Your task to perform on an android device: manage bookmarks in the chrome app Image 0: 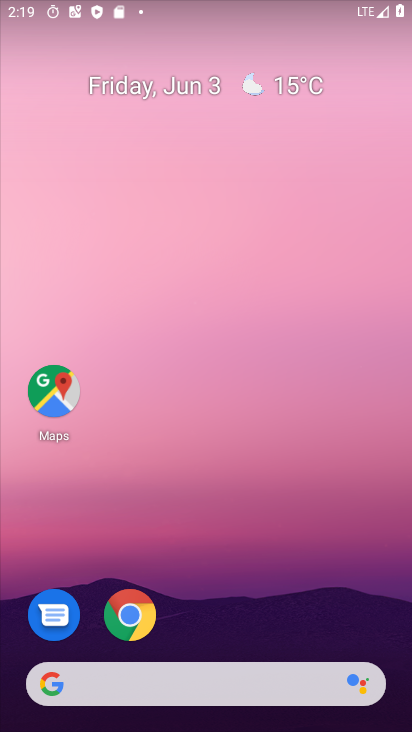
Step 0: click (227, 14)
Your task to perform on an android device: manage bookmarks in the chrome app Image 1: 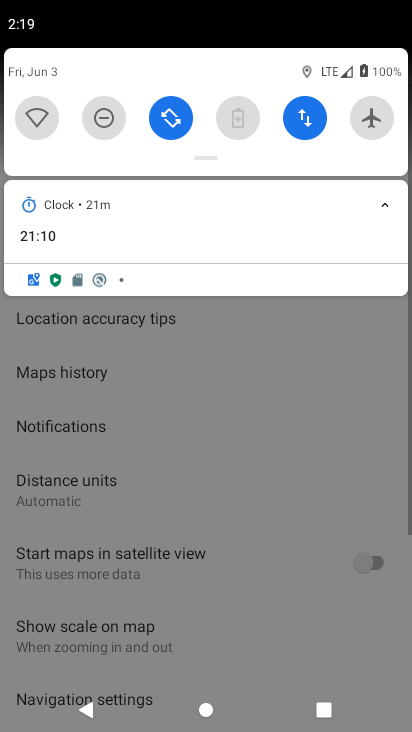
Step 1: drag from (222, 613) to (285, 79)
Your task to perform on an android device: manage bookmarks in the chrome app Image 2: 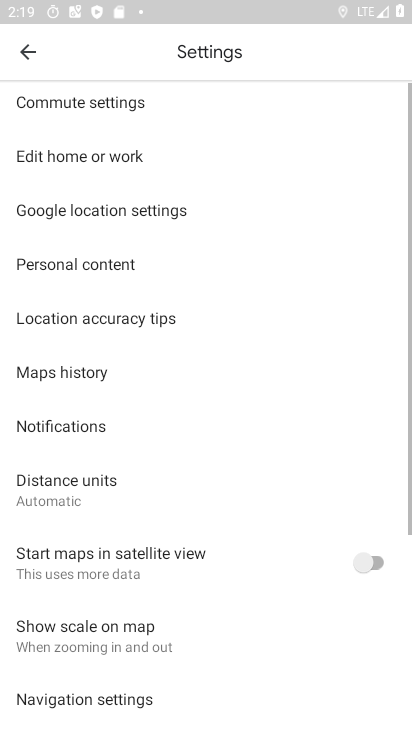
Step 2: press home button
Your task to perform on an android device: manage bookmarks in the chrome app Image 3: 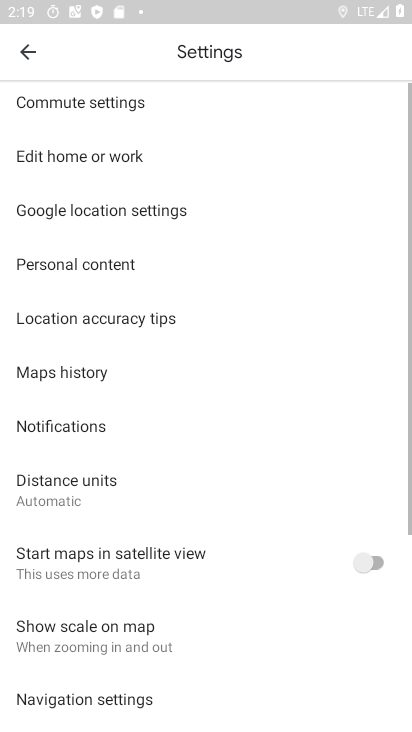
Step 3: drag from (136, 671) to (232, 32)
Your task to perform on an android device: manage bookmarks in the chrome app Image 4: 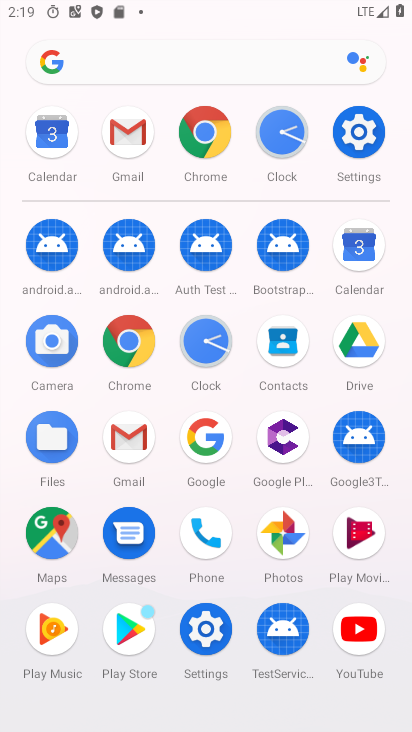
Step 4: click (132, 342)
Your task to perform on an android device: manage bookmarks in the chrome app Image 5: 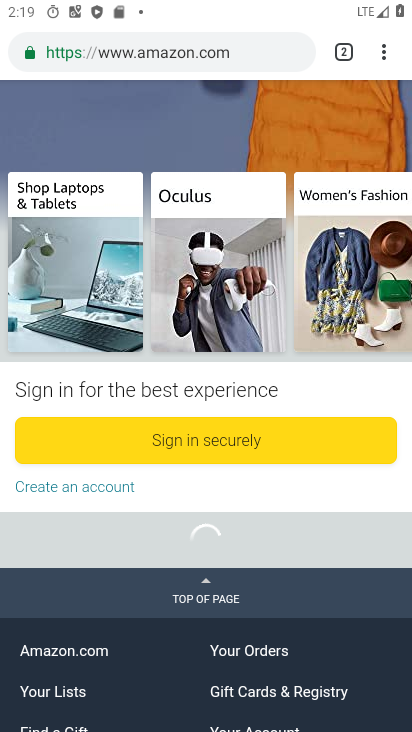
Step 5: drag from (236, 185) to (373, 722)
Your task to perform on an android device: manage bookmarks in the chrome app Image 6: 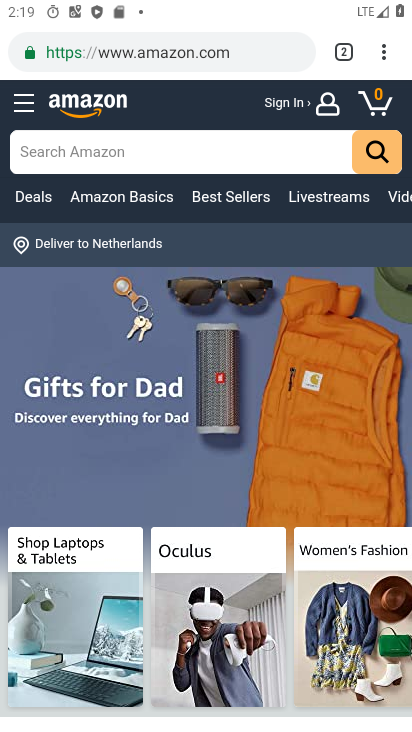
Step 6: click (390, 51)
Your task to perform on an android device: manage bookmarks in the chrome app Image 7: 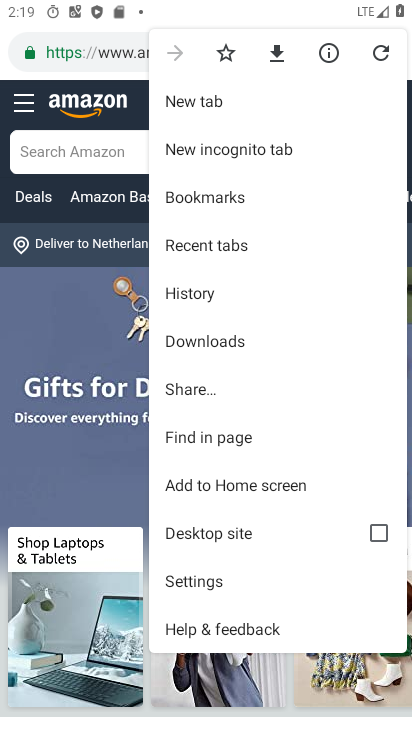
Step 7: drag from (247, 555) to (254, 295)
Your task to perform on an android device: manage bookmarks in the chrome app Image 8: 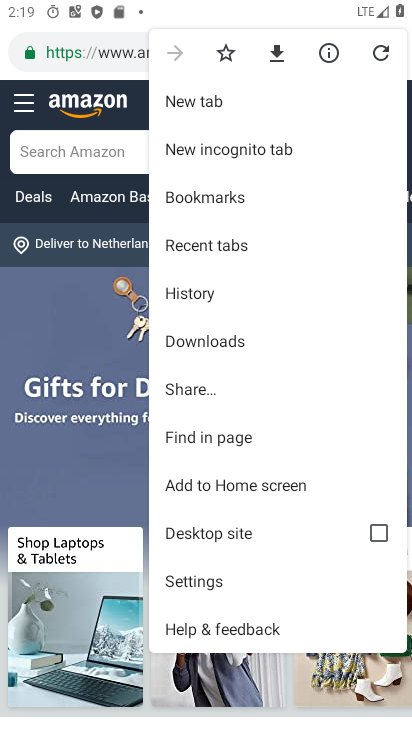
Step 8: click (241, 208)
Your task to perform on an android device: manage bookmarks in the chrome app Image 9: 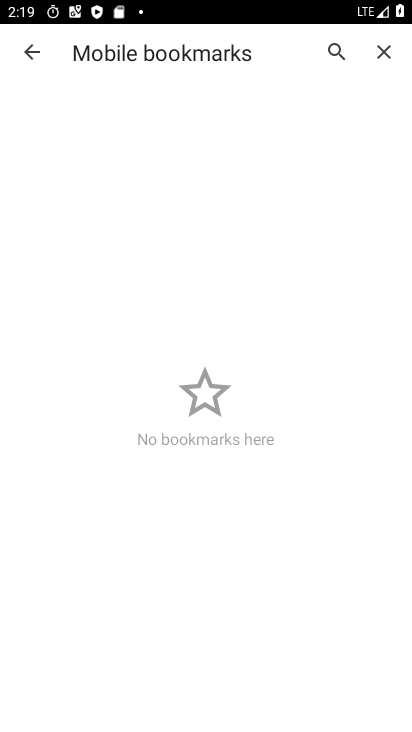
Step 9: task complete